Your task to perform on an android device: Go to Yahoo.com Image 0: 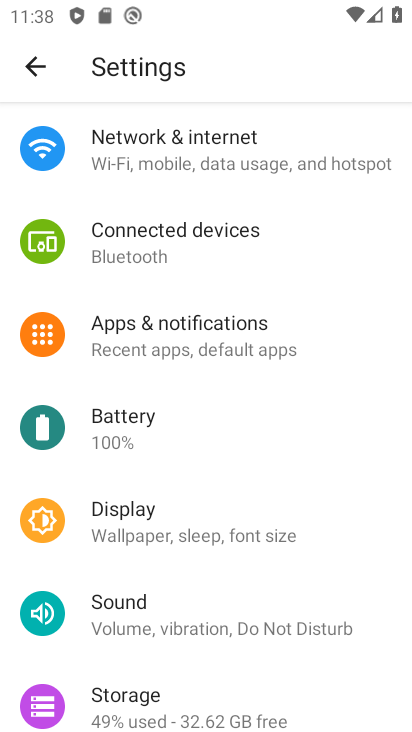
Step 0: press home button
Your task to perform on an android device: Go to Yahoo.com Image 1: 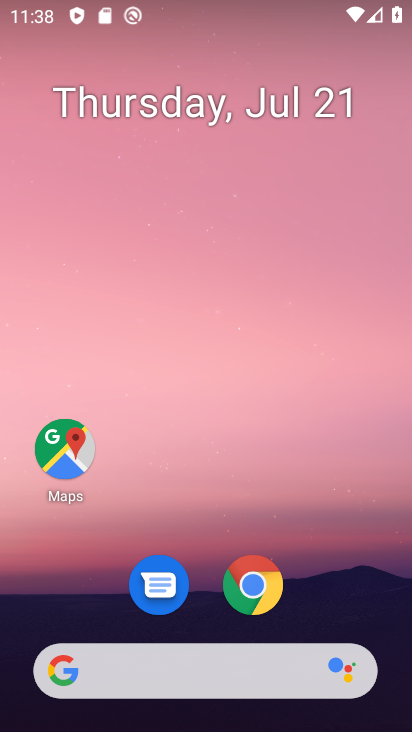
Step 1: click (254, 581)
Your task to perform on an android device: Go to Yahoo.com Image 2: 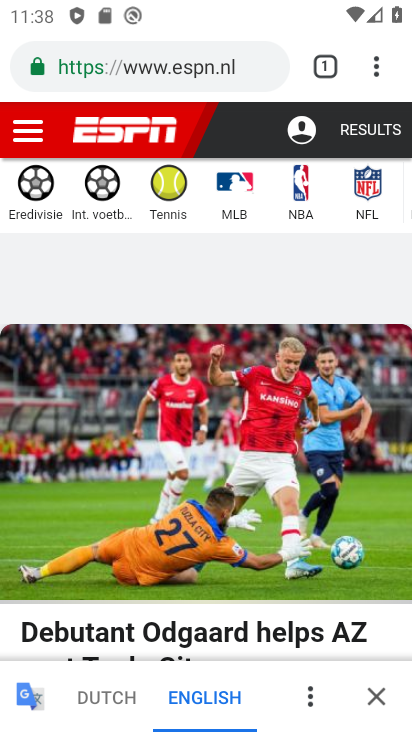
Step 2: drag from (376, 62) to (253, 128)
Your task to perform on an android device: Go to Yahoo.com Image 3: 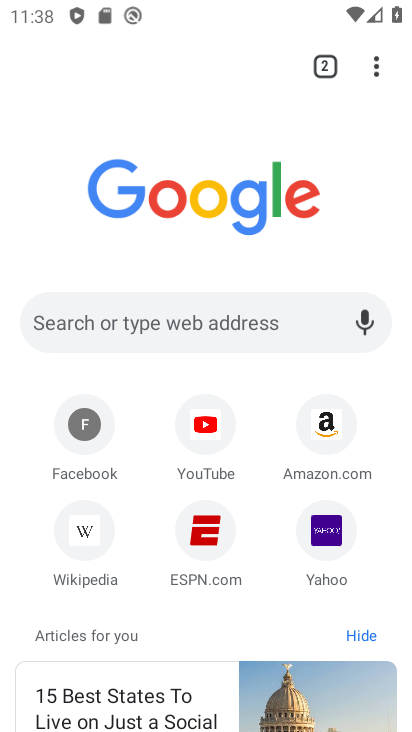
Step 3: click (319, 529)
Your task to perform on an android device: Go to Yahoo.com Image 4: 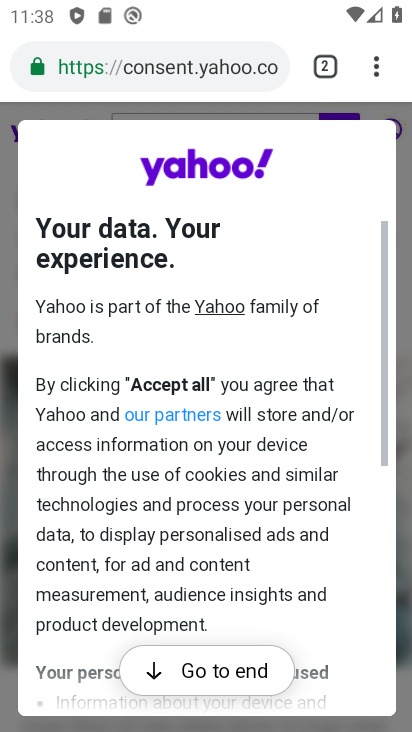
Step 4: drag from (270, 517) to (366, 164)
Your task to perform on an android device: Go to Yahoo.com Image 5: 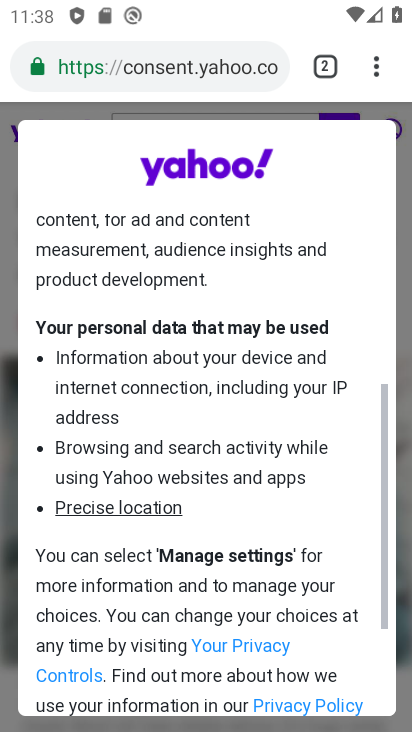
Step 5: drag from (137, 605) to (322, 182)
Your task to perform on an android device: Go to Yahoo.com Image 6: 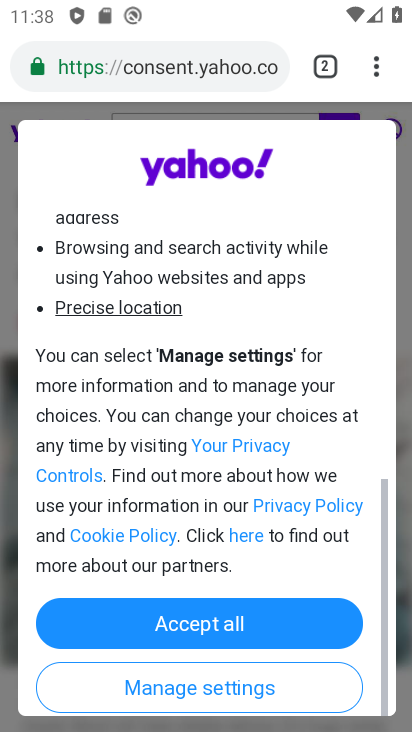
Step 6: click (208, 626)
Your task to perform on an android device: Go to Yahoo.com Image 7: 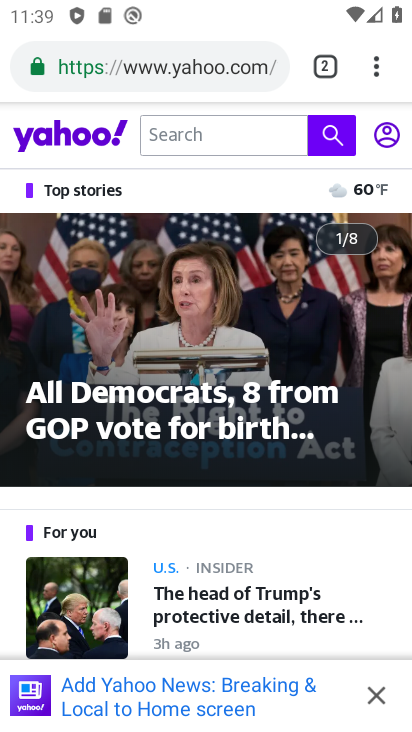
Step 7: task complete